Your task to perform on an android device: turn off smart reply in the gmail app Image 0: 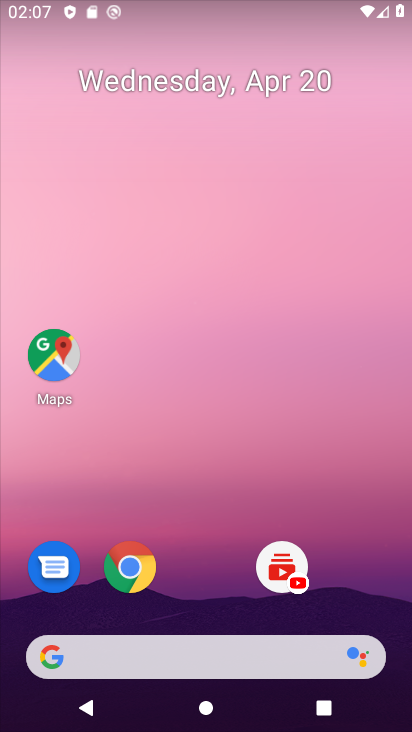
Step 0: drag from (201, 599) to (370, 7)
Your task to perform on an android device: turn off smart reply in the gmail app Image 1: 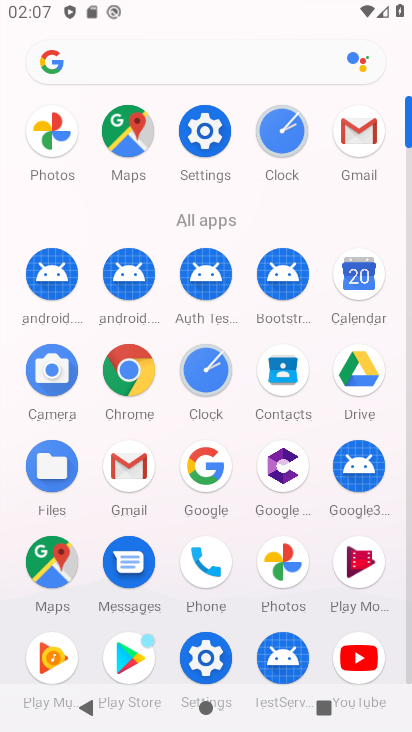
Step 1: click (133, 466)
Your task to perform on an android device: turn off smart reply in the gmail app Image 2: 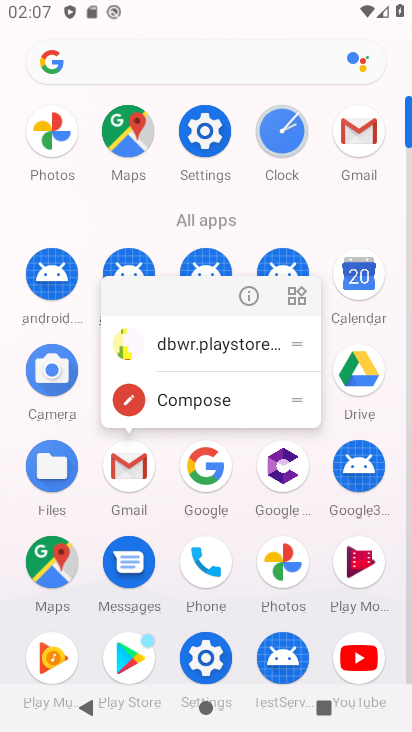
Step 2: click (248, 301)
Your task to perform on an android device: turn off smart reply in the gmail app Image 3: 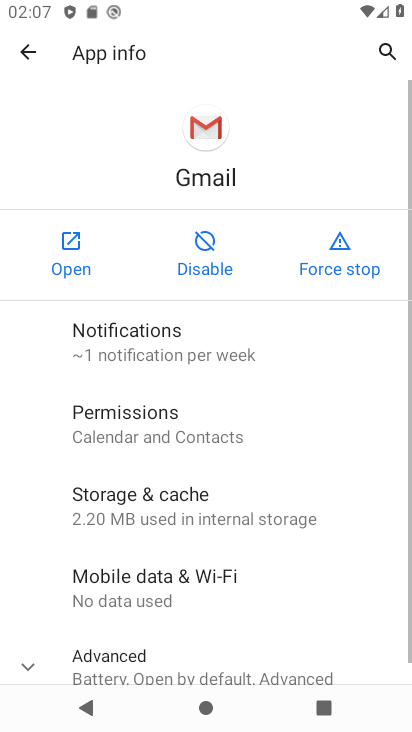
Step 3: click (65, 250)
Your task to perform on an android device: turn off smart reply in the gmail app Image 4: 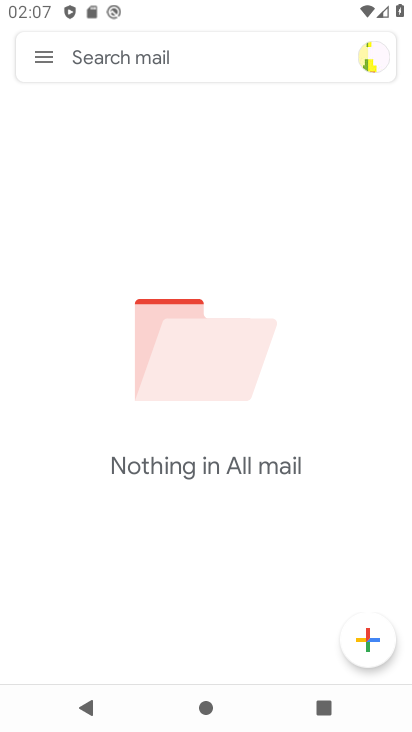
Step 4: click (183, 273)
Your task to perform on an android device: turn off smart reply in the gmail app Image 5: 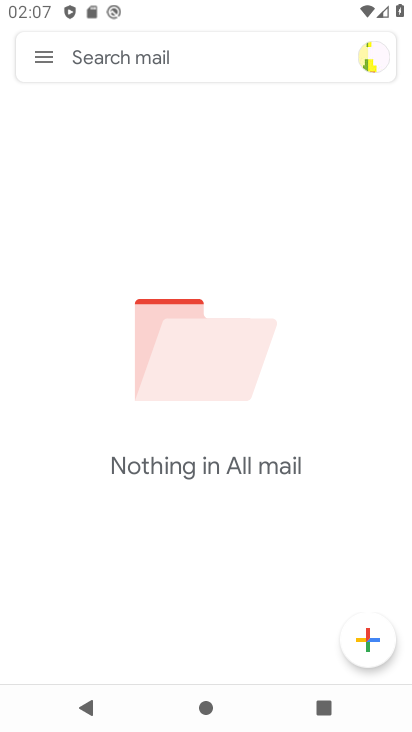
Step 5: click (178, 267)
Your task to perform on an android device: turn off smart reply in the gmail app Image 6: 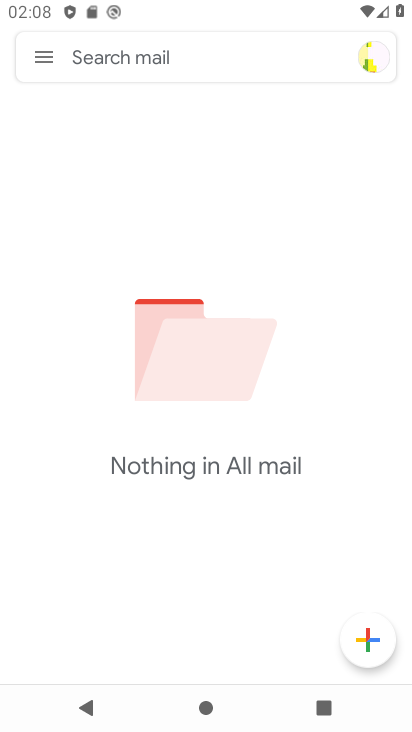
Step 6: click (196, 444)
Your task to perform on an android device: turn off smart reply in the gmail app Image 7: 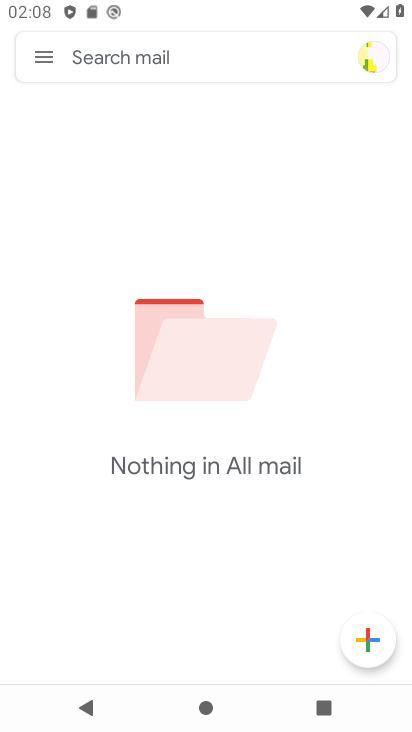
Step 7: click (244, 231)
Your task to perform on an android device: turn off smart reply in the gmail app Image 8: 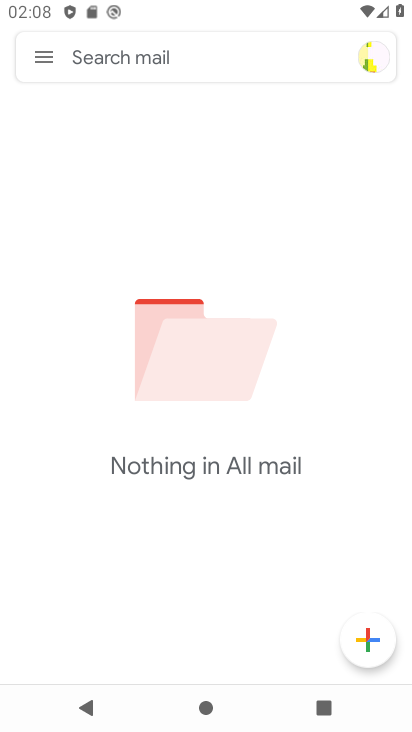
Step 8: click (40, 56)
Your task to perform on an android device: turn off smart reply in the gmail app Image 9: 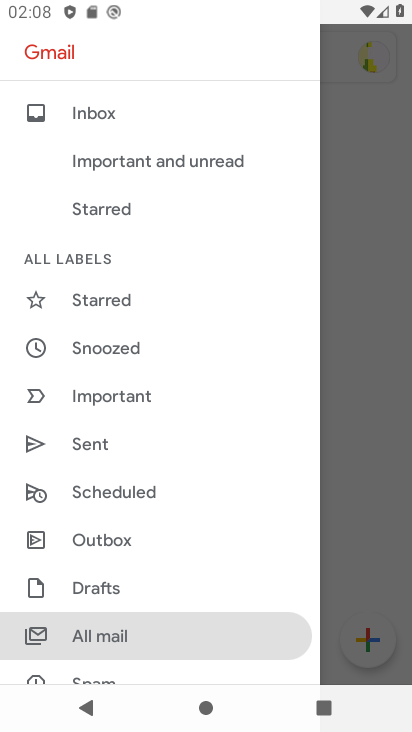
Step 9: drag from (161, 469) to (164, 155)
Your task to perform on an android device: turn off smart reply in the gmail app Image 10: 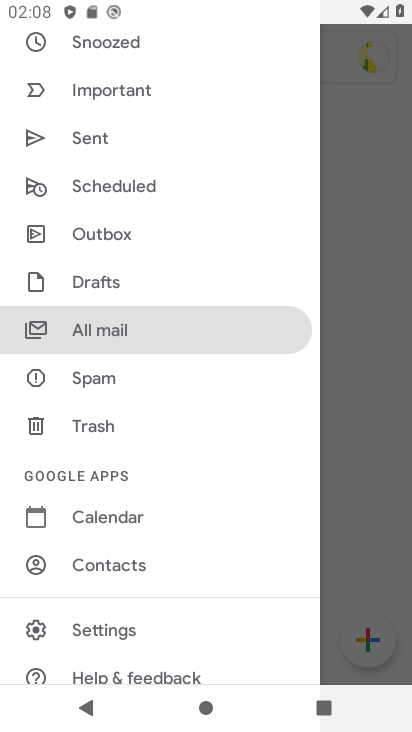
Step 10: click (125, 619)
Your task to perform on an android device: turn off smart reply in the gmail app Image 11: 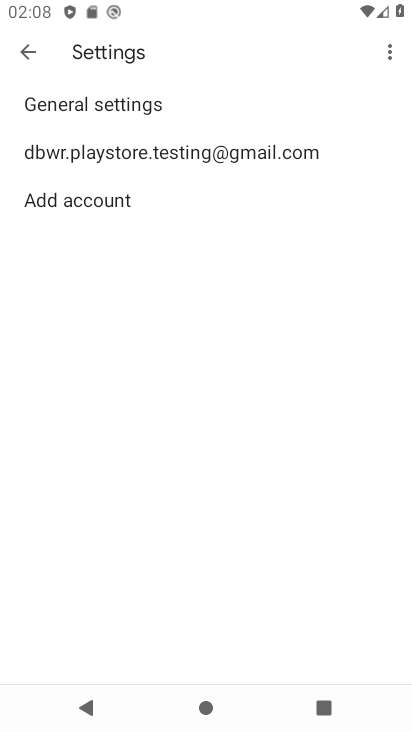
Step 11: click (236, 136)
Your task to perform on an android device: turn off smart reply in the gmail app Image 12: 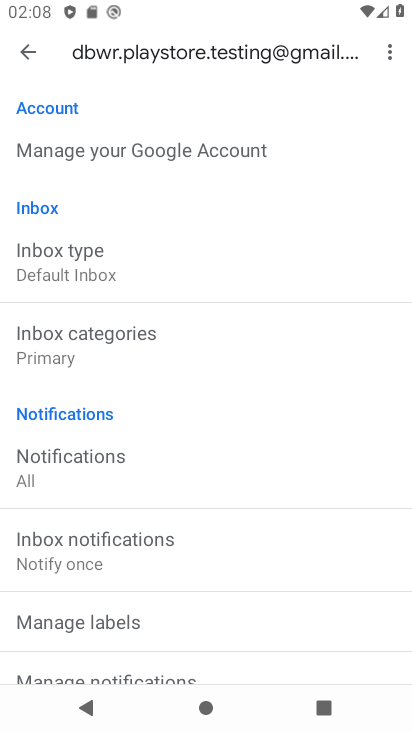
Step 12: drag from (188, 540) to (201, 94)
Your task to perform on an android device: turn off smart reply in the gmail app Image 13: 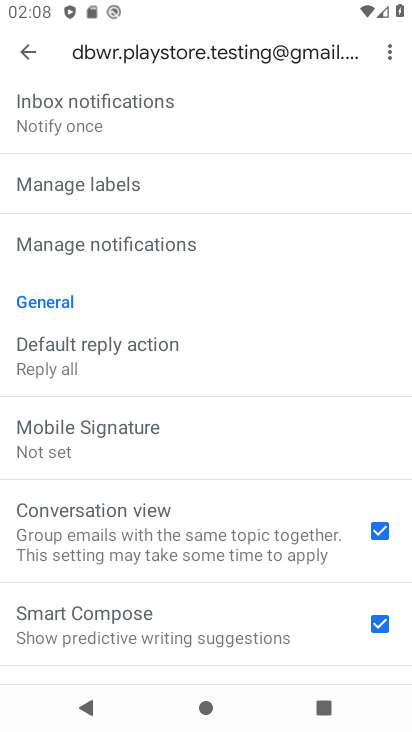
Step 13: drag from (193, 500) to (189, 189)
Your task to perform on an android device: turn off smart reply in the gmail app Image 14: 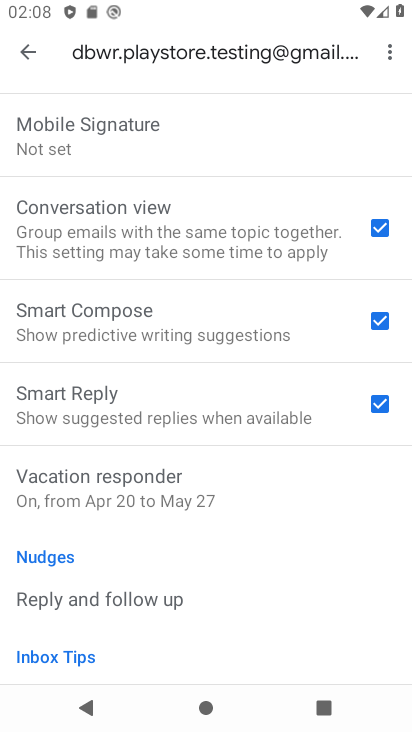
Step 14: click (217, 383)
Your task to perform on an android device: turn off smart reply in the gmail app Image 15: 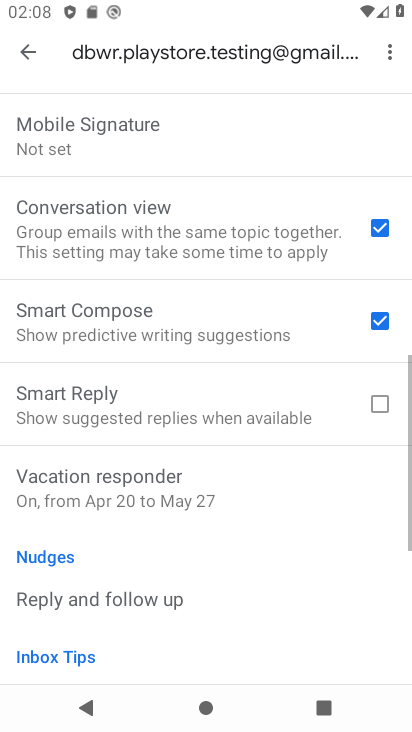
Step 15: task complete